Your task to perform on an android device: Go to Maps Image 0: 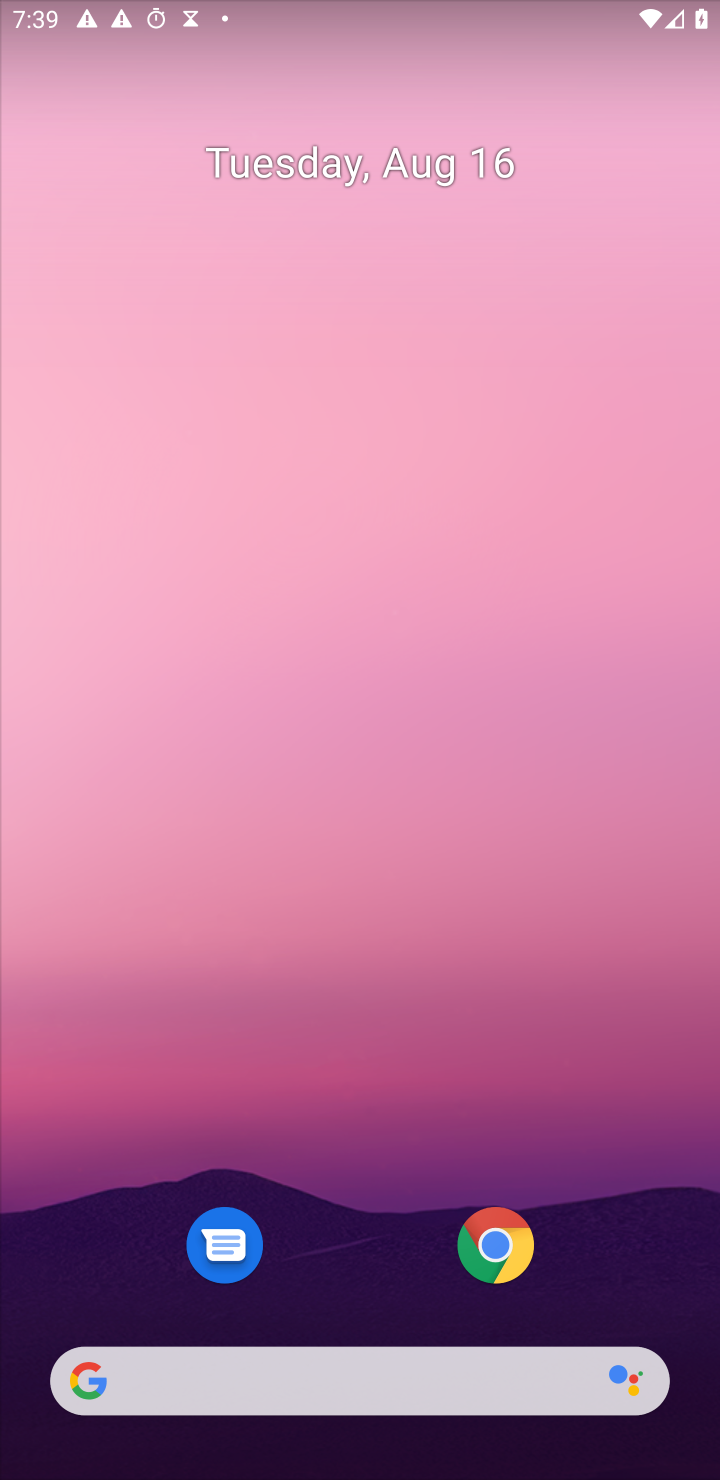
Step 0: press home button
Your task to perform on an android device: Go to Maps Image 1: 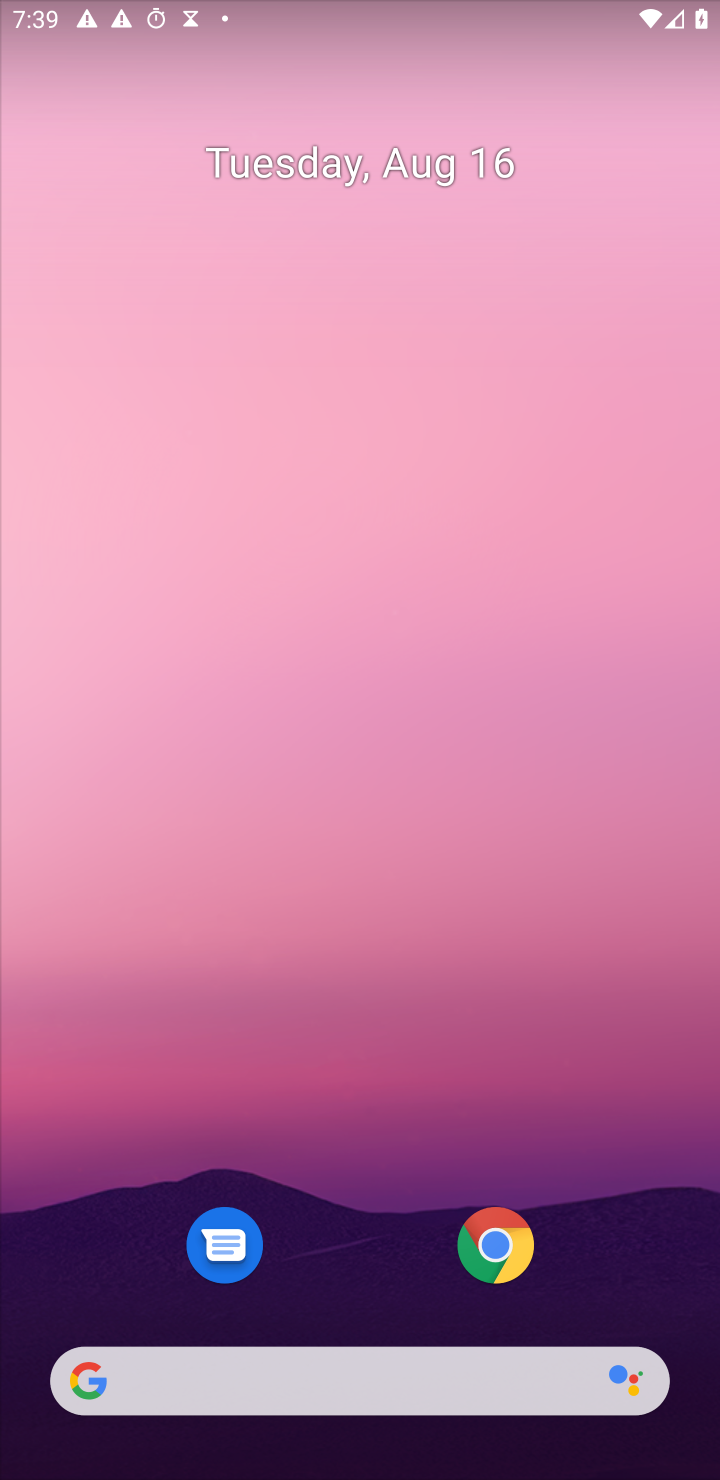
Step 1: click (407, 174)
Your task to perform on an android device: Go to Maps Image 2: 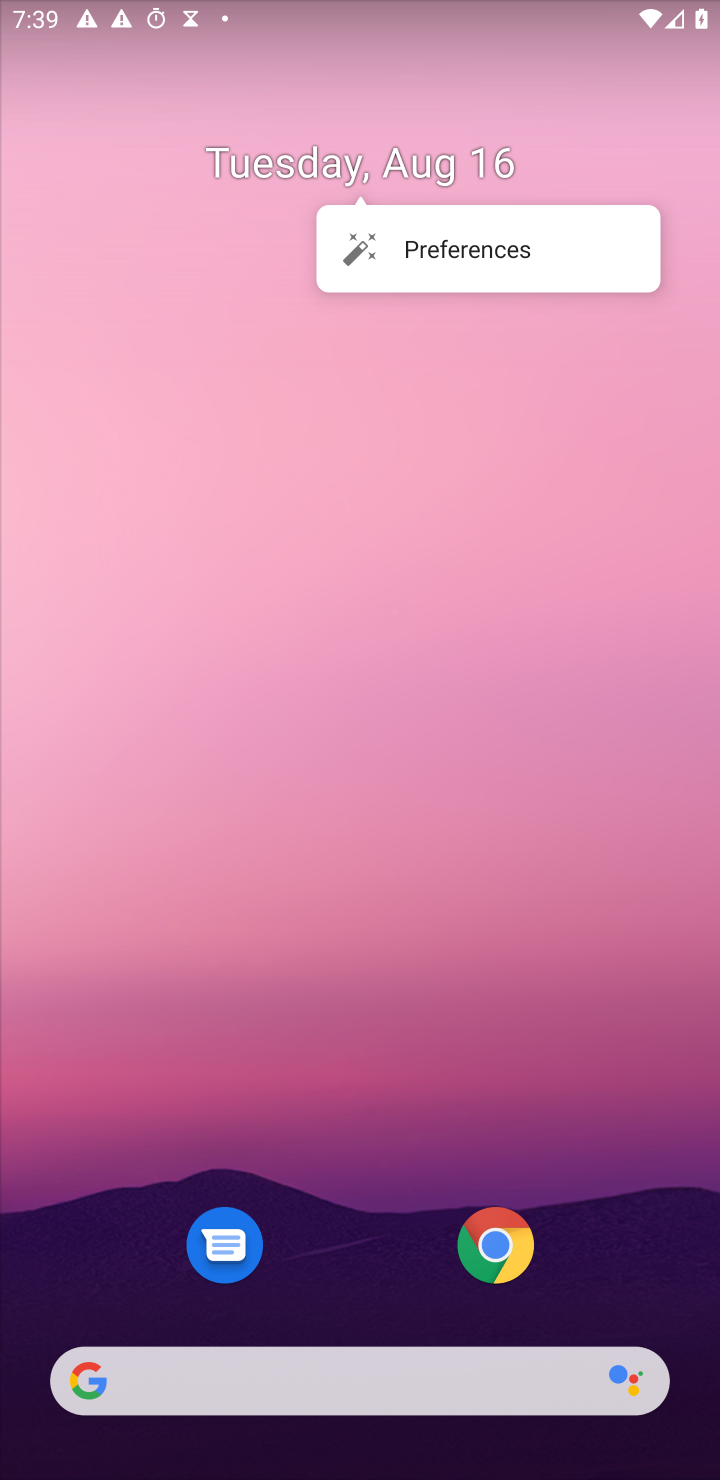
Step 2: drag from (284, 520) to (261, 24)
Your task to perform on an android device: Go to Maps Image 3: 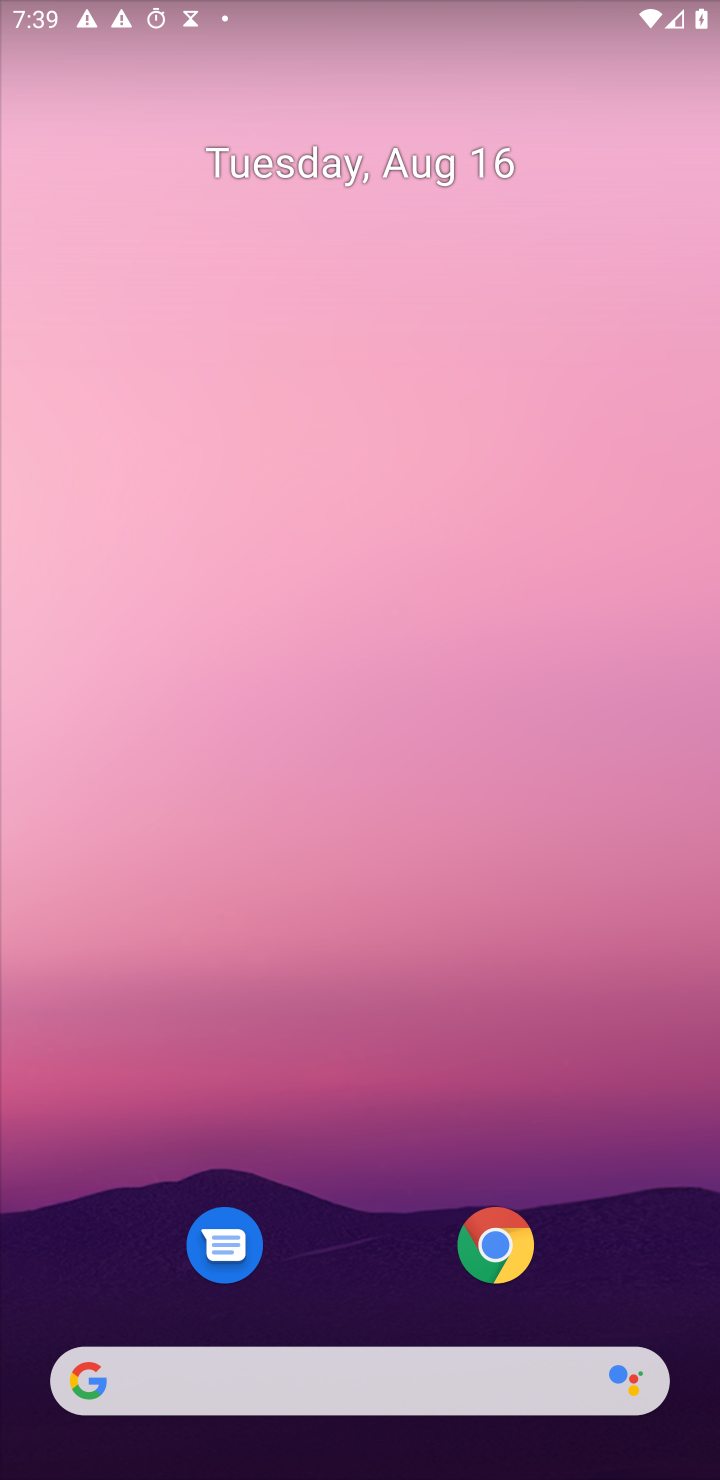
Step 3: press home button
Your task to perform on an android device: Go to Maps Image 4: 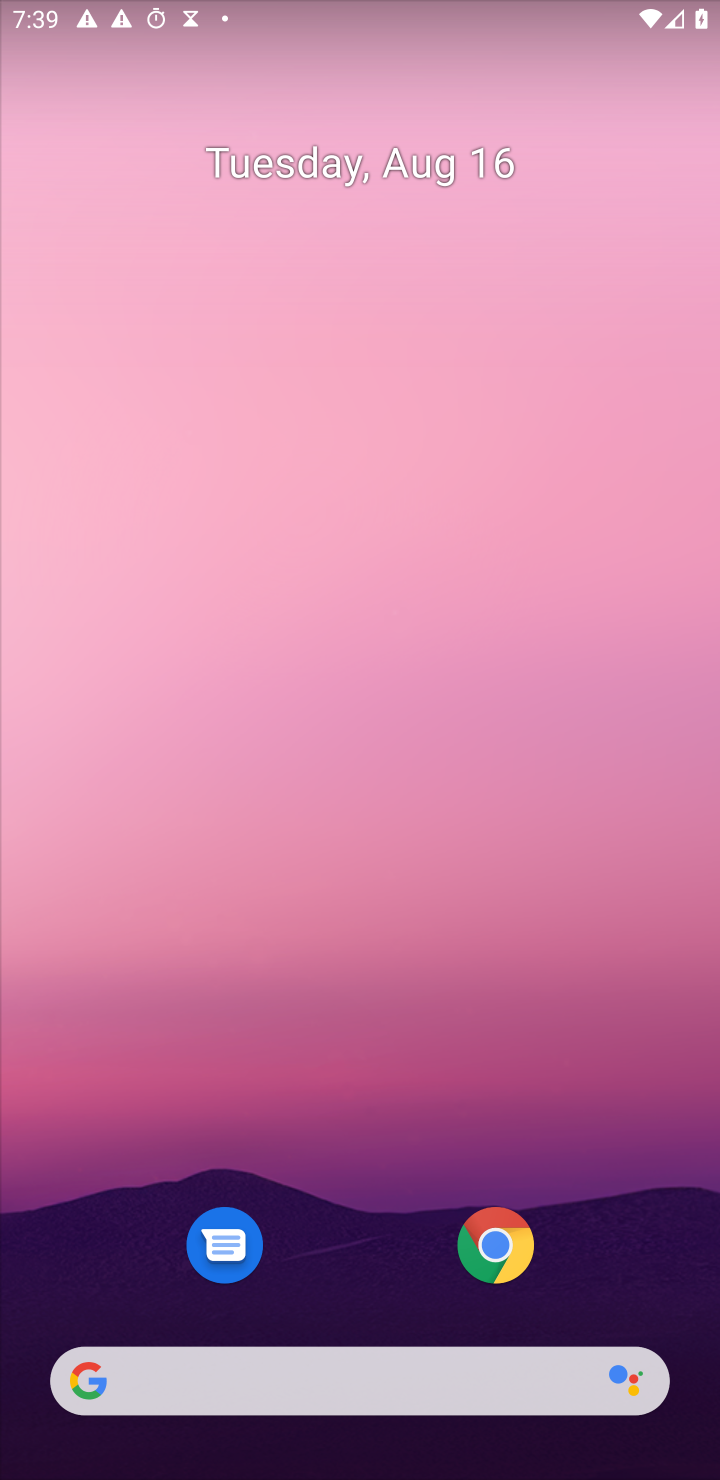
Step 4: drag from (366, 1282) to (377, 179)
Your task to perform on an android device: Go to Maps Image 5: 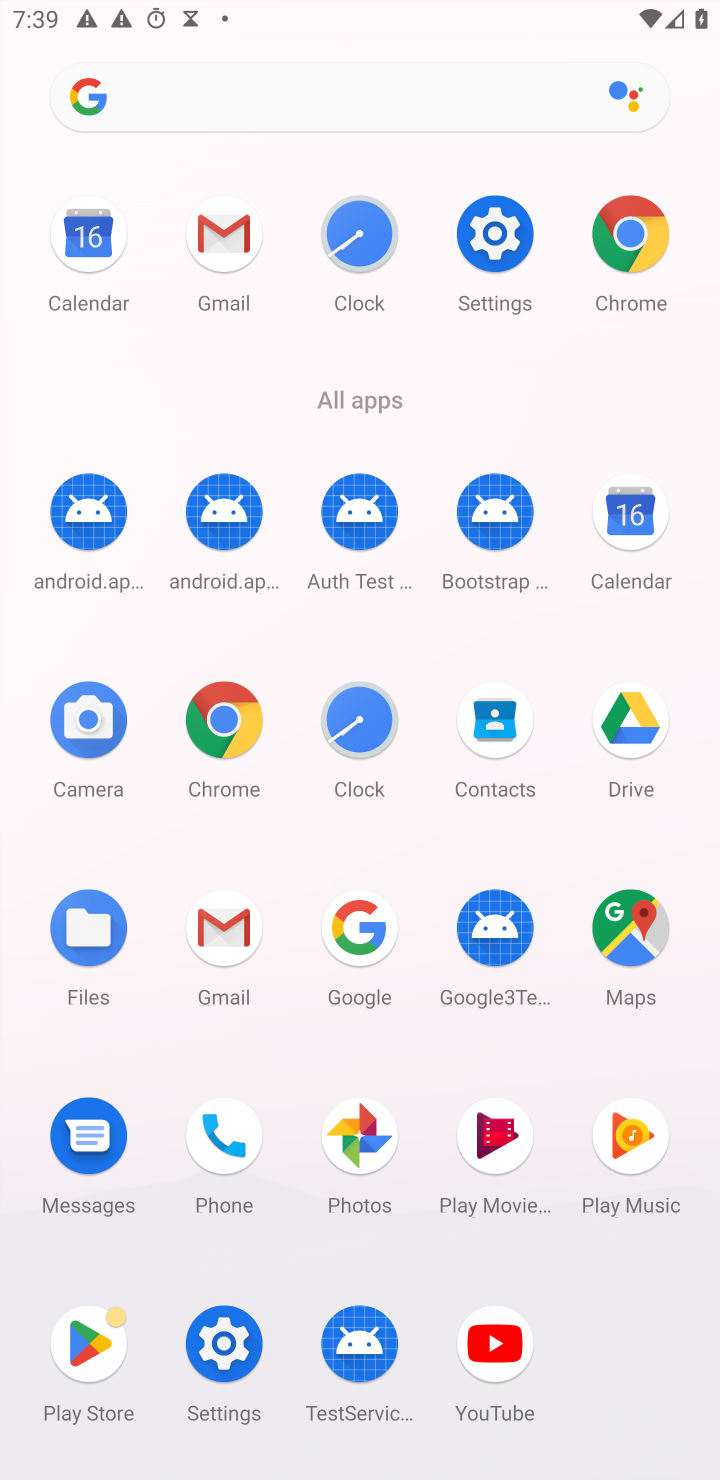
Step 5: click (623, 940)
Your task to perform on an android device: Go to Maps Image 6: 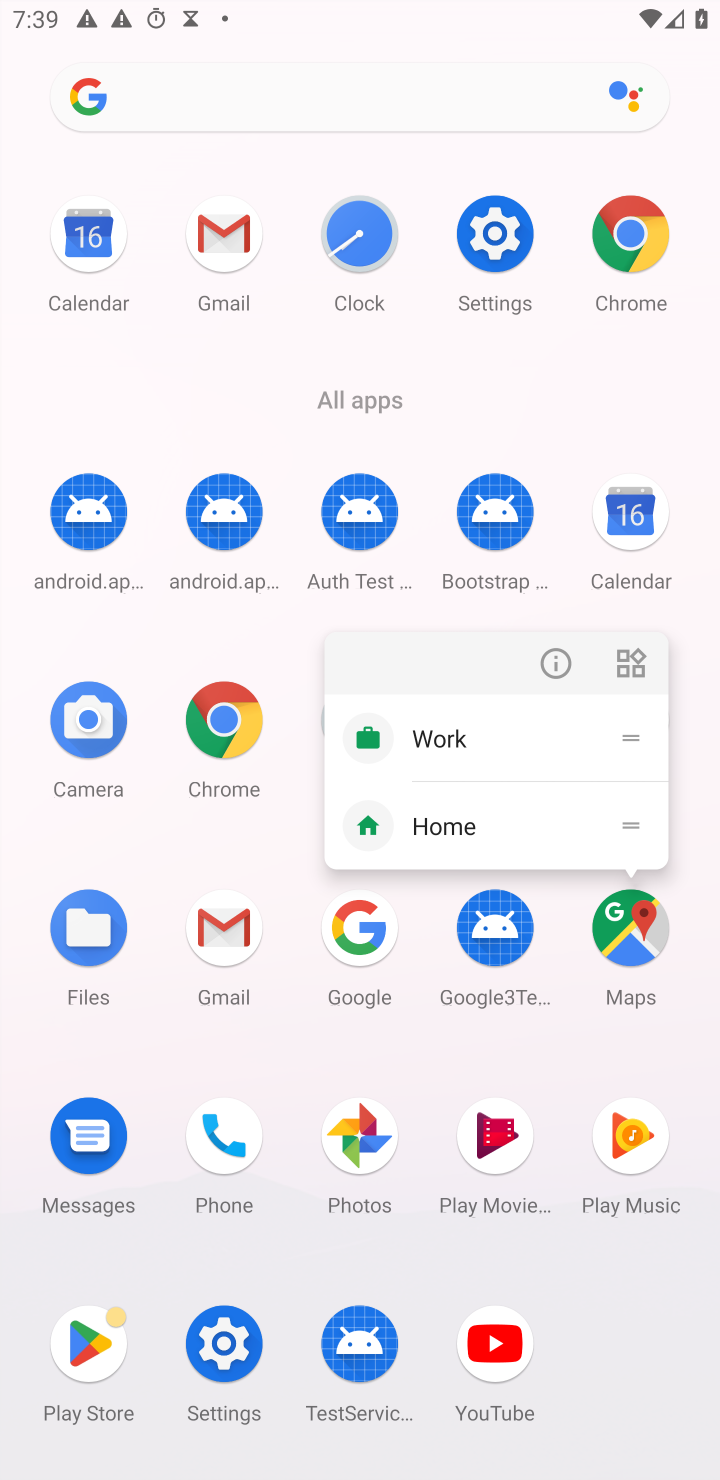
Step 6: click (621, 943)
Your task to perform on an android device: Go to Maps Image 7: 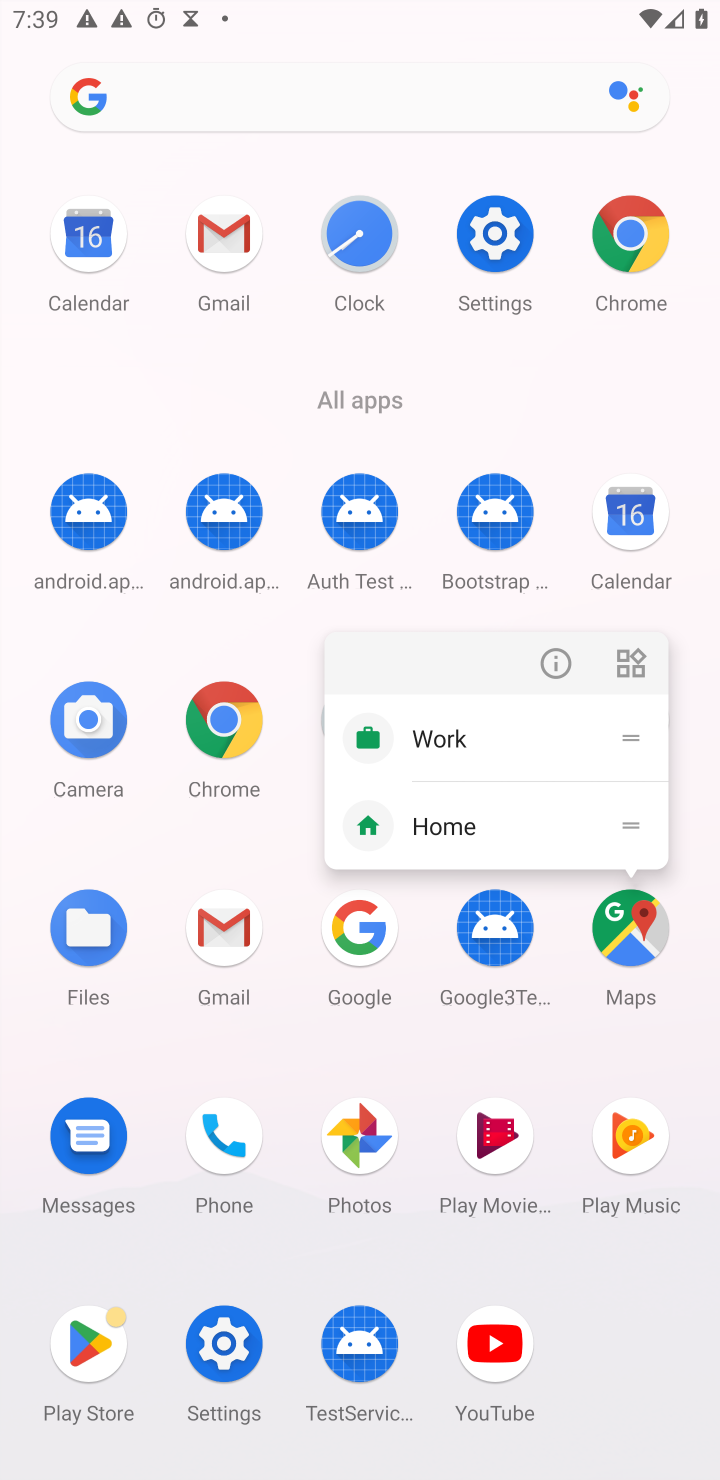
Step 7: click (623, 935)
Your task to perform on an android device: Go to Maps Image 8: 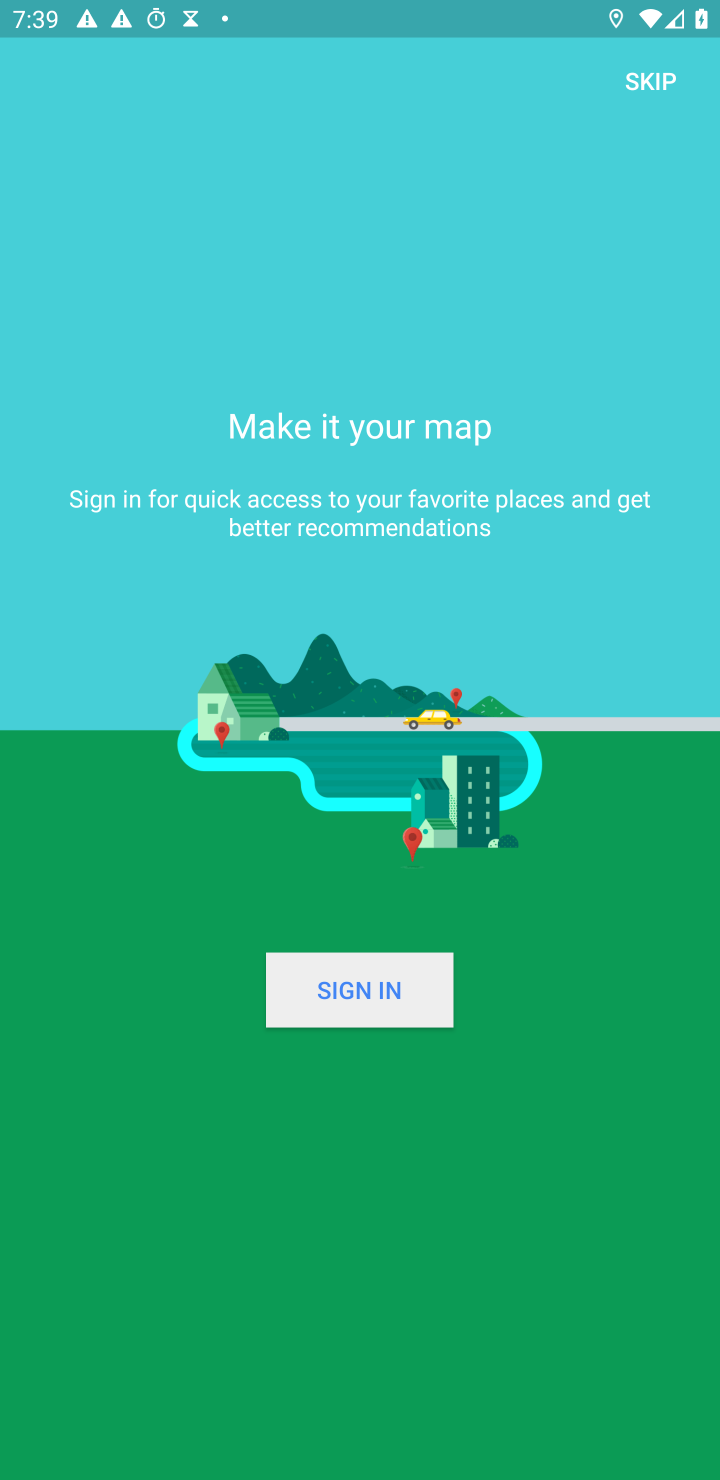
Step 8: click (671, 80)
Your task to perform on an android device: Go to Maps Image 9: 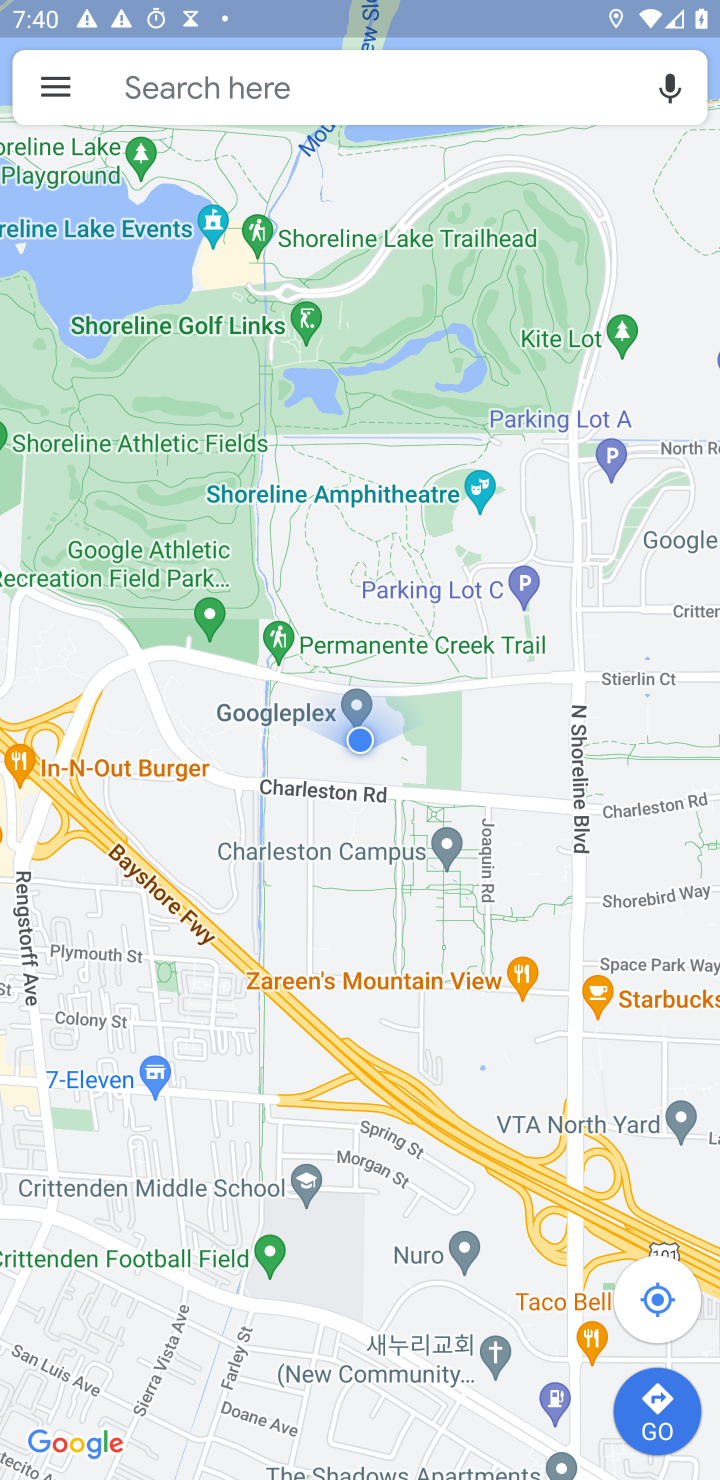
Step 9: task complete